Your task to perform on an android device: Open Maps and search for coffee Image 0: 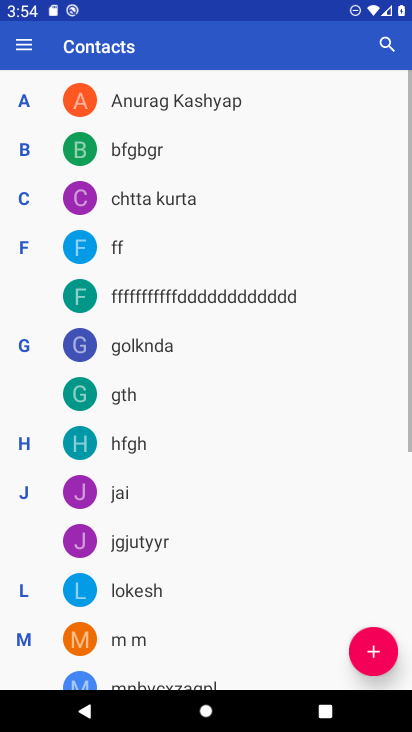
Step 0: drag from (302, 673) to (298, 238)
Your task to perform on an android device: Open Maps and search for coffee Image 1: 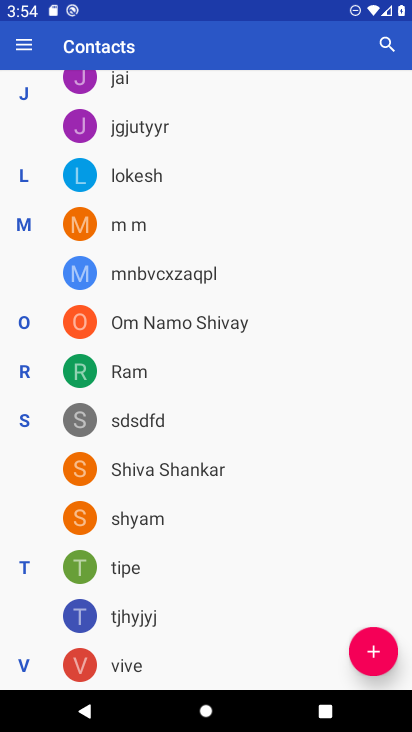
Step 1: press home button
Your task to perform on an android device: Open Maps and search for coffee Image 2: 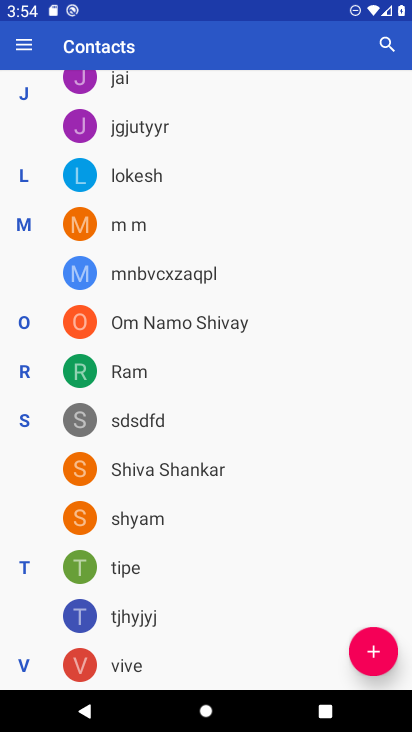
Step 2: press home button
Your task to perform on an android device: Open Maps and search for coffee Image 3: 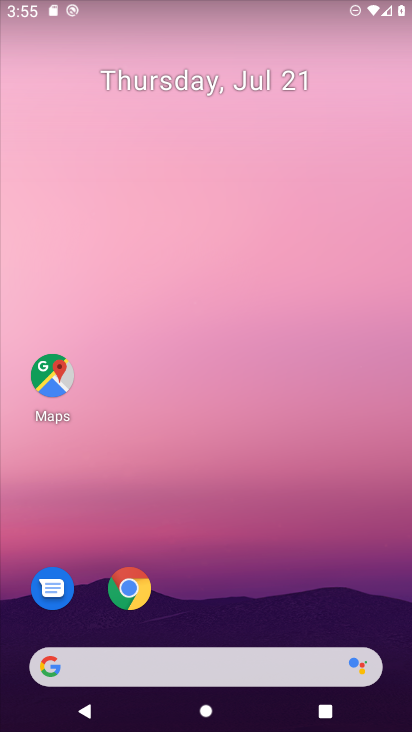
Step 3: drag from (203, 611) to (411, 523)
Your task to perform on an android device: Open Maps and search for coffee Image 4: 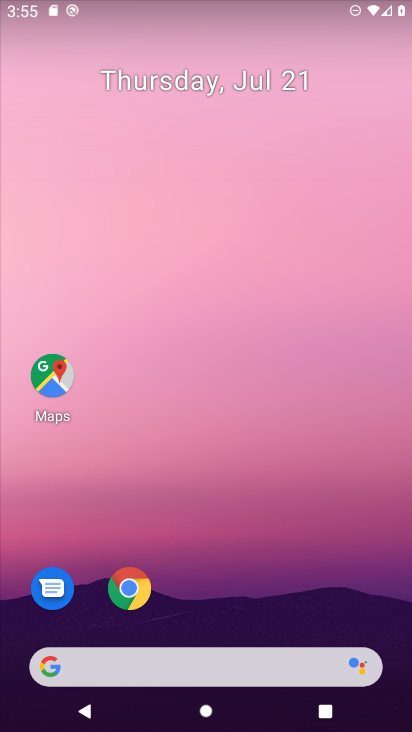
Step 4: drag from (95, 716) to (225, 153)
Your task to perform on an android device: Open Maps and search for coffee Image 5: 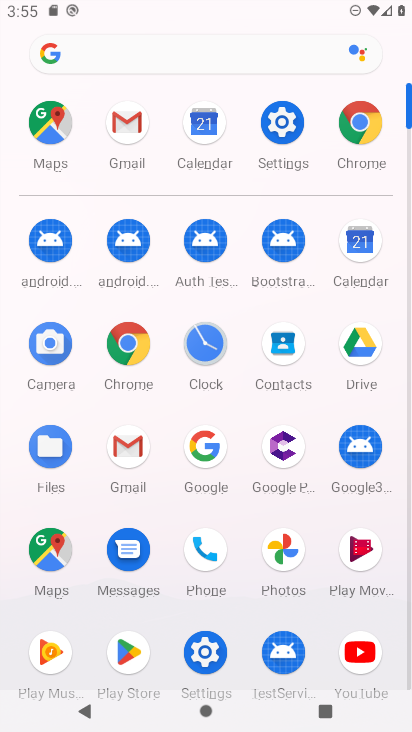
Step 5: click (57, 558)
Your task to perform on an android device: Open Maps and search for coffee Image 6: 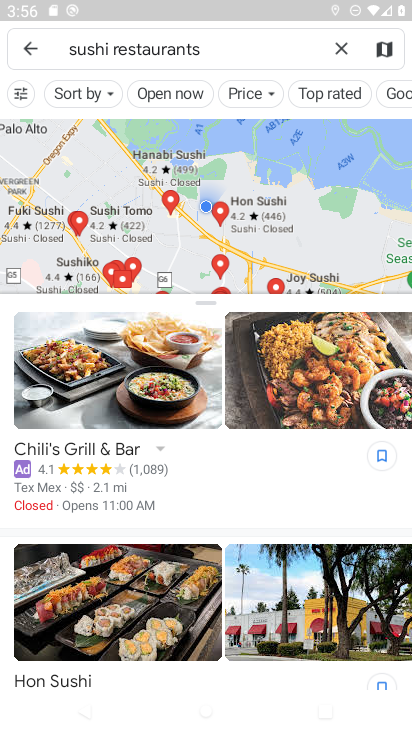
Step 6: click (323, 54)
Your task to perform on an android device: Open Maps and search for coffee Image 7: 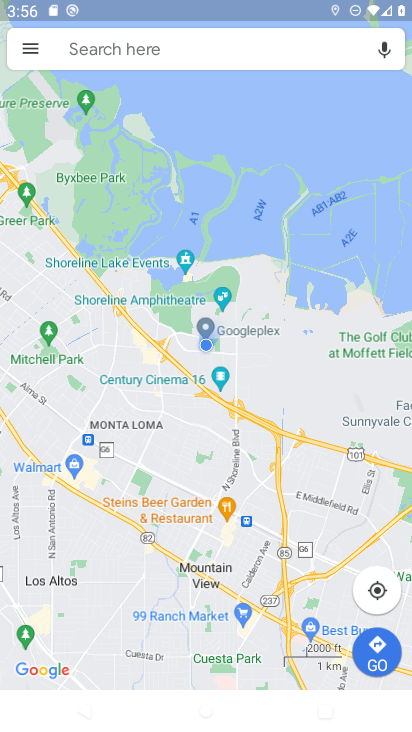
Step 7: click (280, 47)
Your task to perform on an android device: Open Maps and search for coffee Image 8: 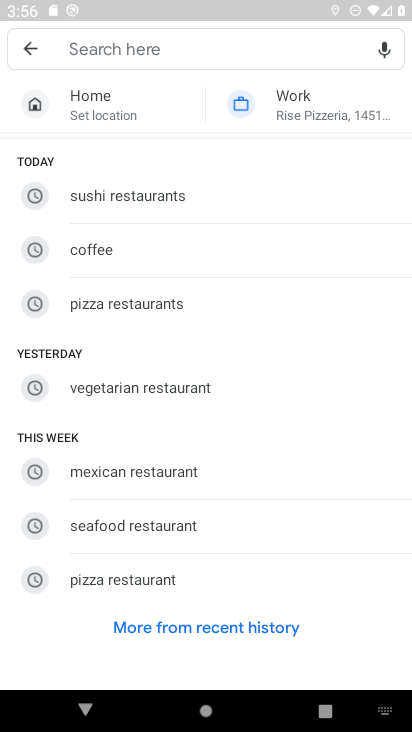
Step 8: click (124, 242)
Your task to perform on an android device: Open Maps and search for coffee Image 9: 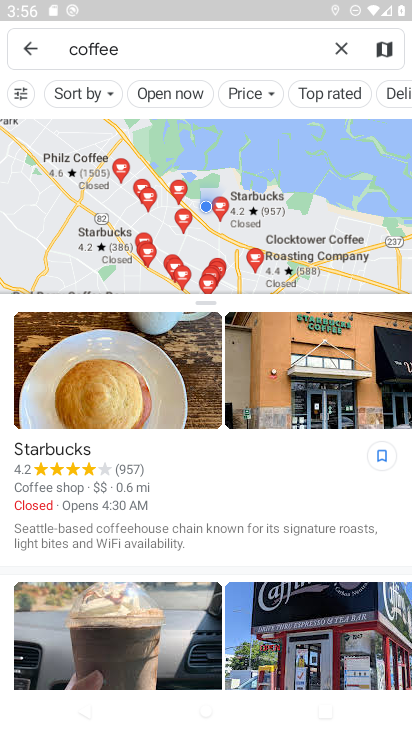
Step 9: task complete